Your task to perform on an android device: Search for "lenovo thinkpad" on newegg, select the first entry, add it to the cart, then select checkout. Image 0: 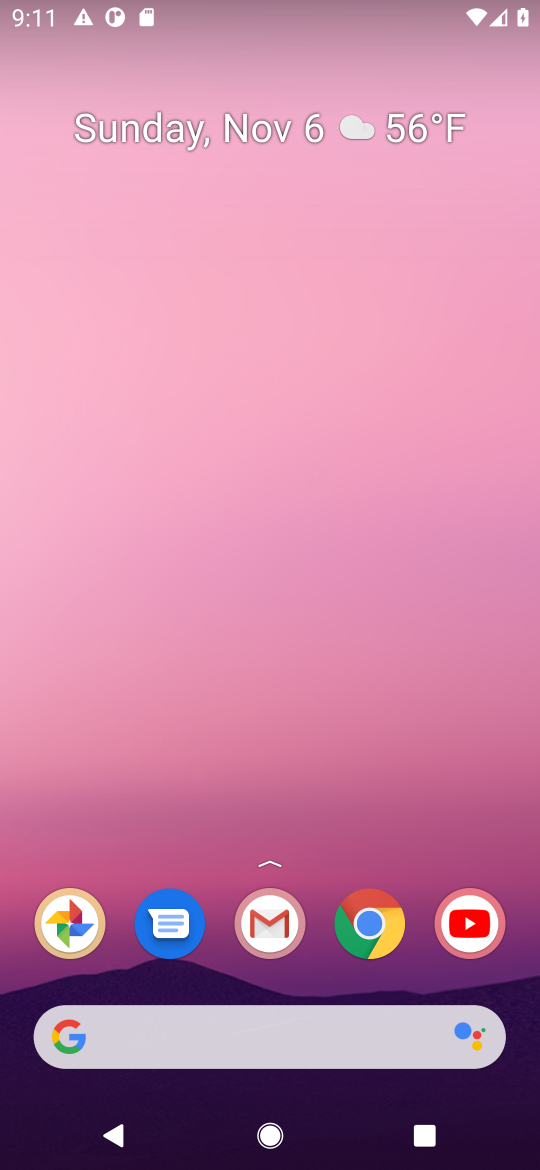
Step 0: click (370, 929)
Your task to perform on an android device: Search for "lenovo thinkpad" on newegg, select the first entry, add it to the cart, then select checkout. Image 1: 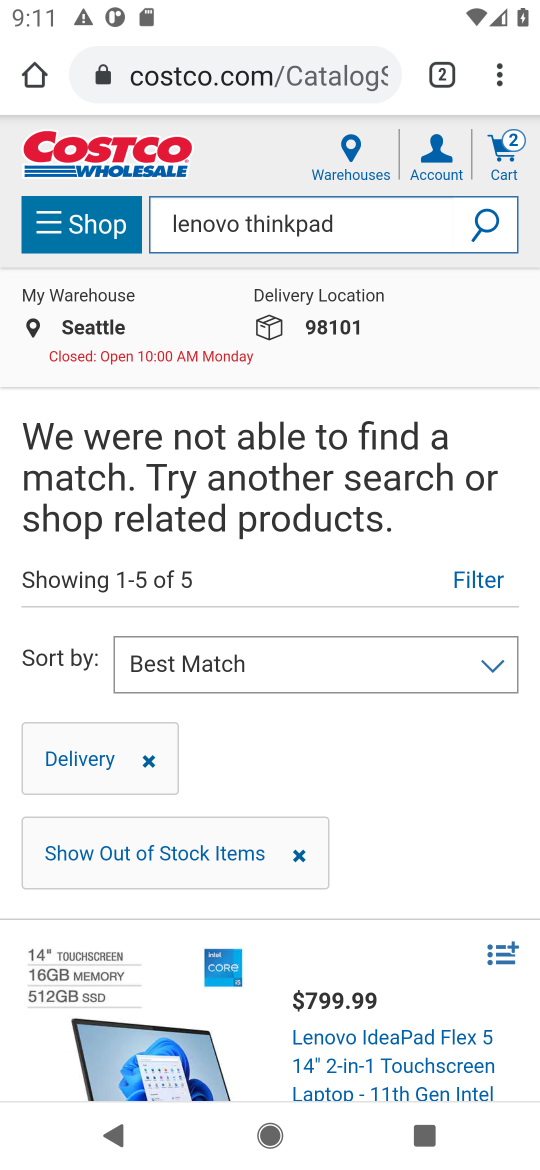
Step 1: click (246, 81)
Your task to perform on an android device: Search for "lenovo thinkpad" on newegg, select the first entry, add it to the cart, then select checkout. Image 2: 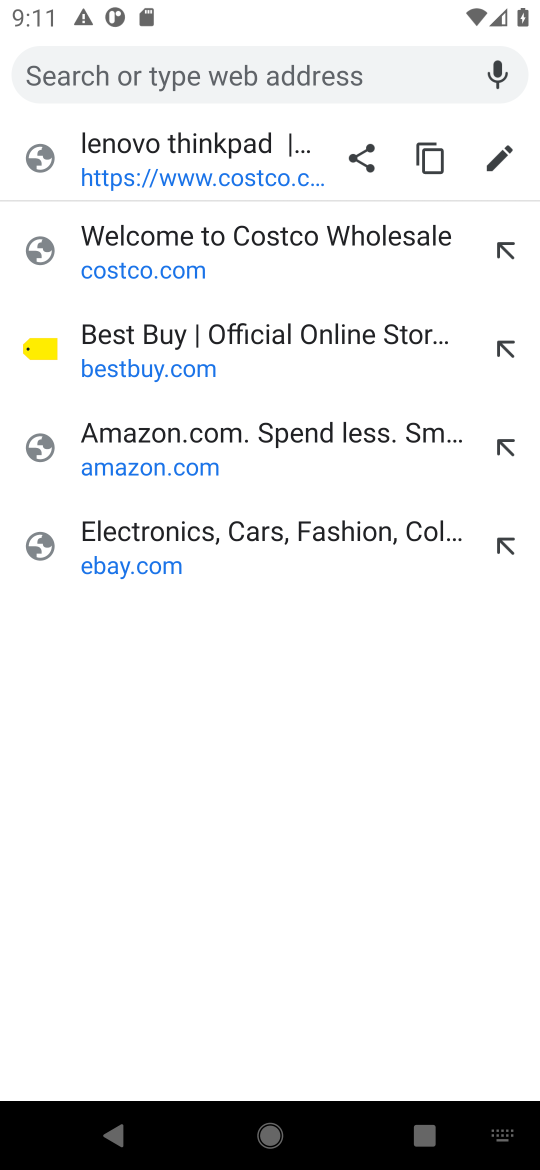
Step 2: type "newegg.com"
Your task to perform on an android device: Search for "lenovo thinkpad" on newegg, select the first entry, add it to the cart, then select checkout. Image 3: 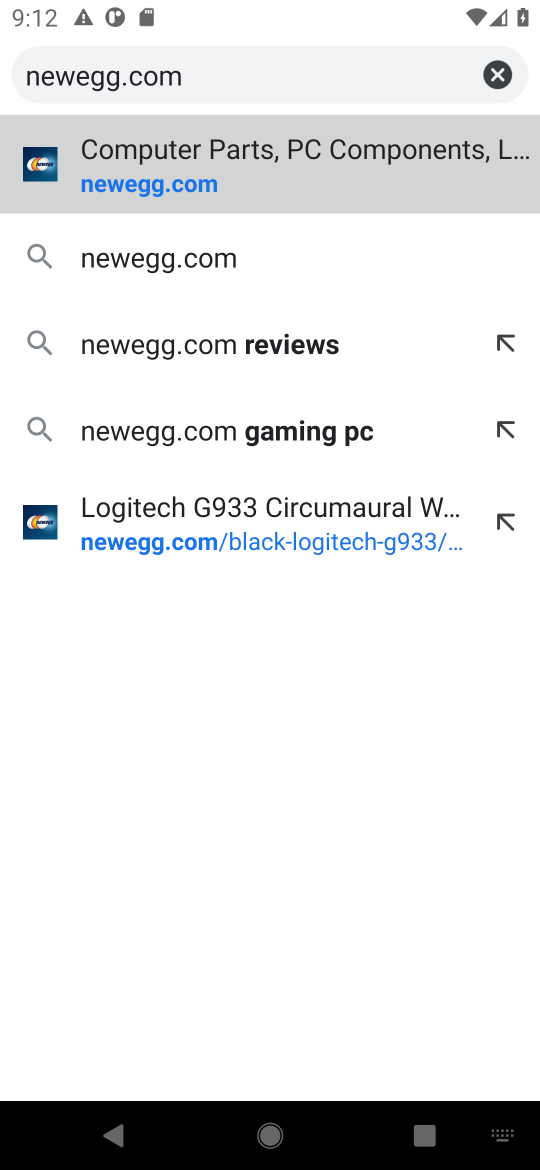
Step 3: click (117, 263)
Your task to perform on an android device: Search for "lenovo thinkpad" on newegg, select the first entry, add it to the cart, then select checkout. Image 4: 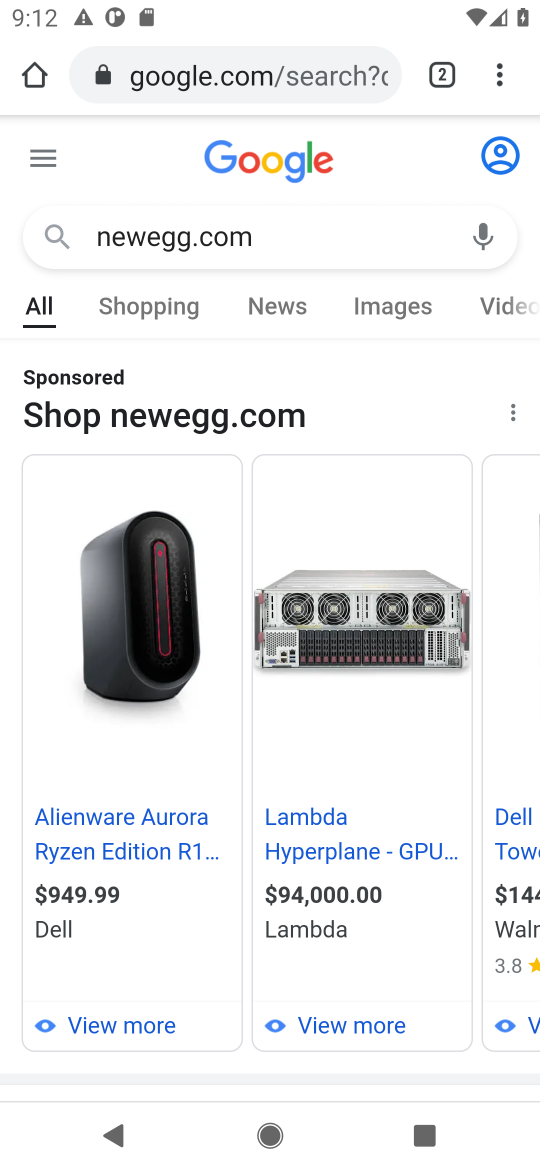
Step 4: drag from (161, 733) to (159, 5)
Your task to perform on an android device: Search for "lenovo thinkpad" on newegg, select the first entry, add it to the cart, then select checkout. Image 5: 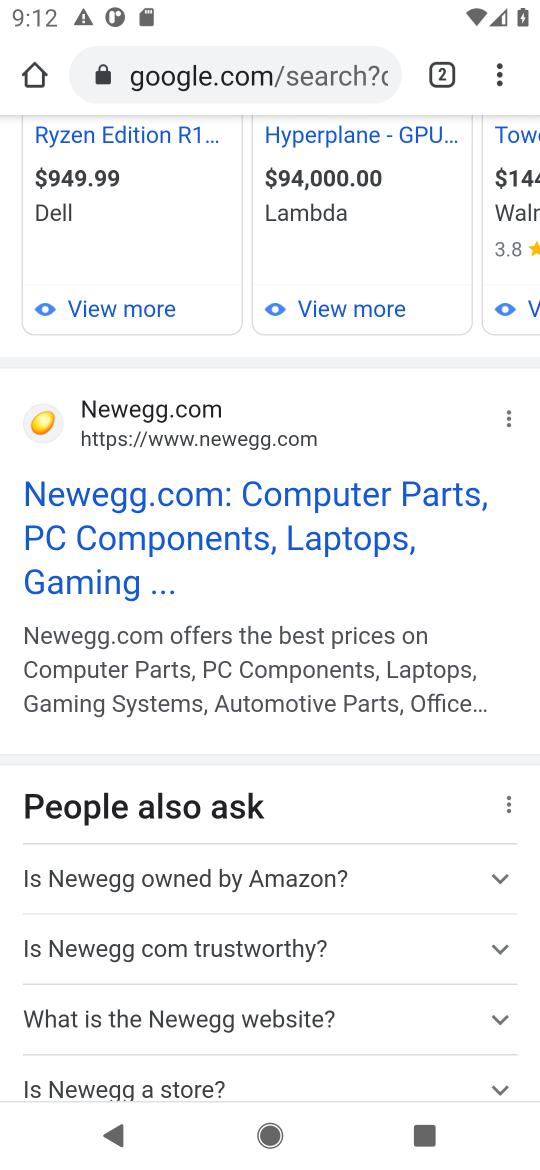
Step 5: click (150, 511)
Your task to perform on an android device: Search for "lenovo thinkpad" on newegg, select the first entry, add it to the cart, then select checkout. Image 6: 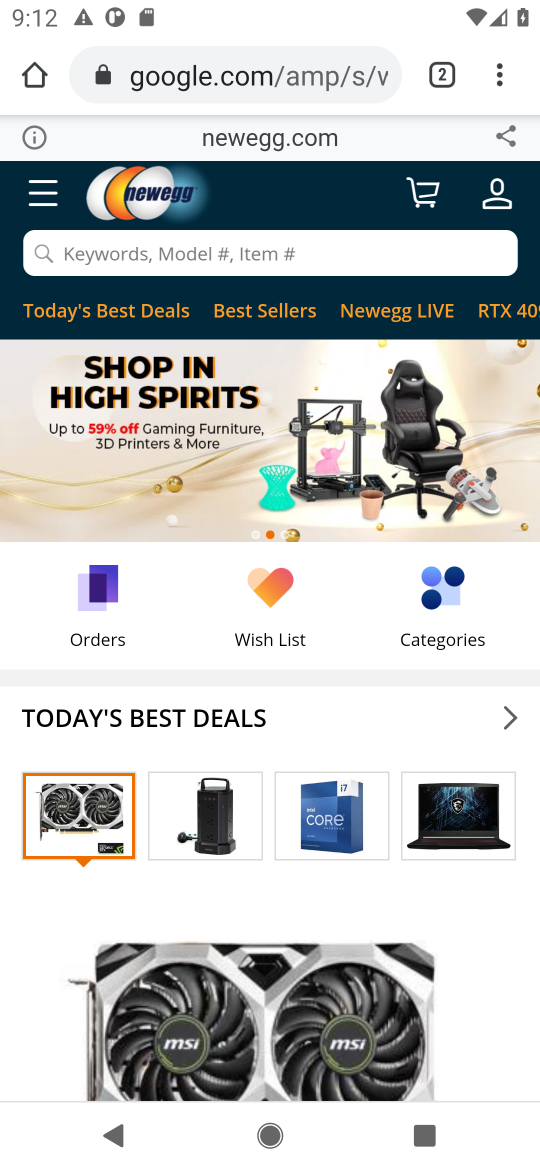
Step 6: click (252, 248)
Your task to perform on an android device: Search for "lenovo thinkpad" on newegg, select the first entry, add it to the cart, then select checkout. Image 7: 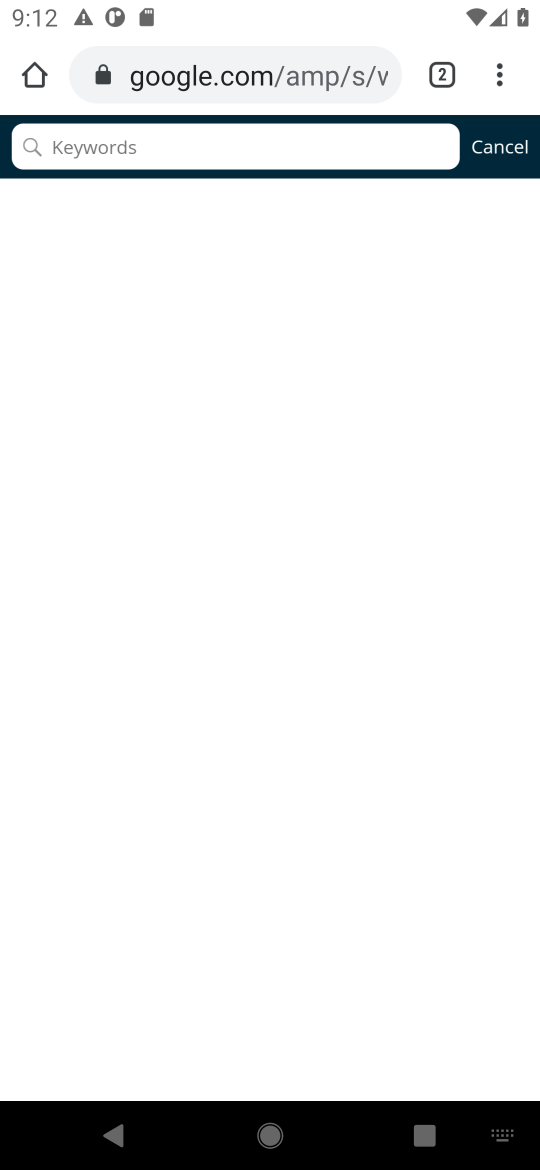
Step 7: type "lenovo thinkpad"
Your task to perform on an android device: Search for "lenovo thinkpad" on newegg, select the first entry, add it to the cart, then select checkout. Image 8: 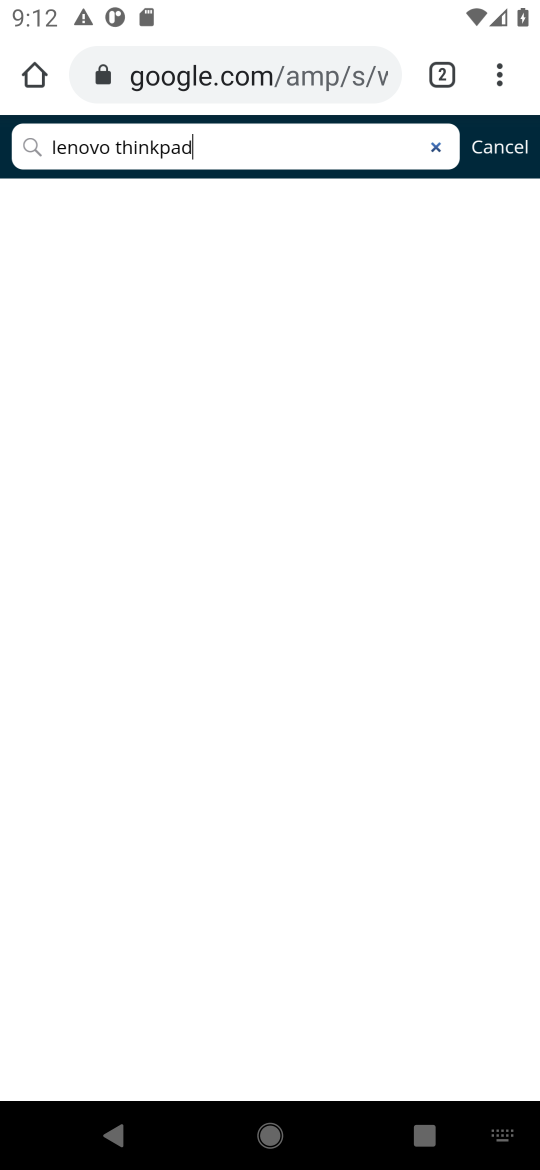
Step 8: click (513, 159)
Your task to perform on an android device: Search for "lenovo thinkpad" on newegg, select the first entry, add it to the cart, then select checkout. Image 9: 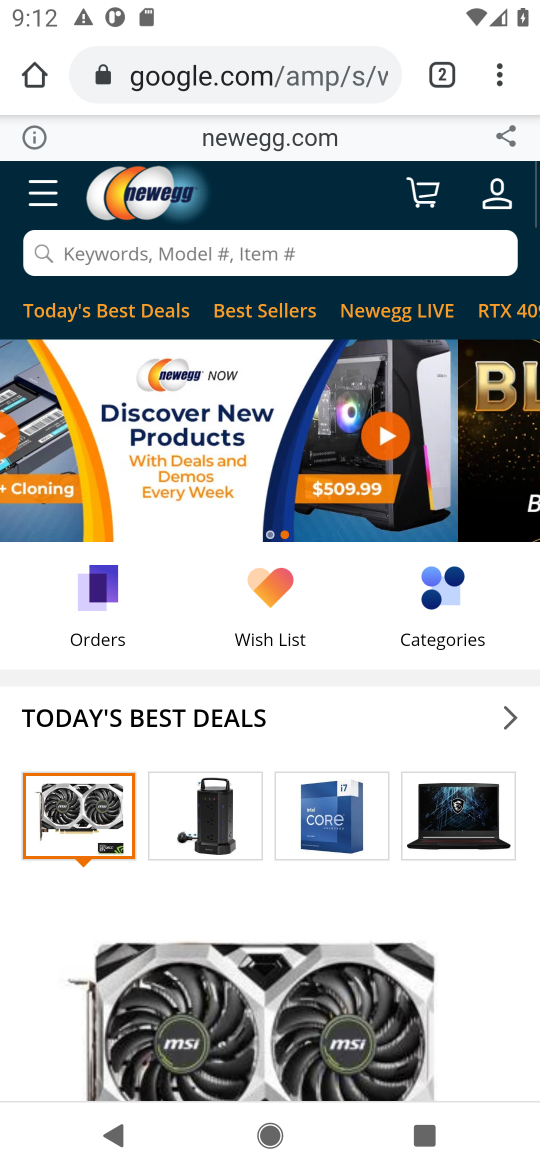
Step 9: click (425, 199)
Your task to perform on an android device: Search for "lenovo thinkpad" on newegg, select the first entry, add it to the cart, then select checkout. Image 10: 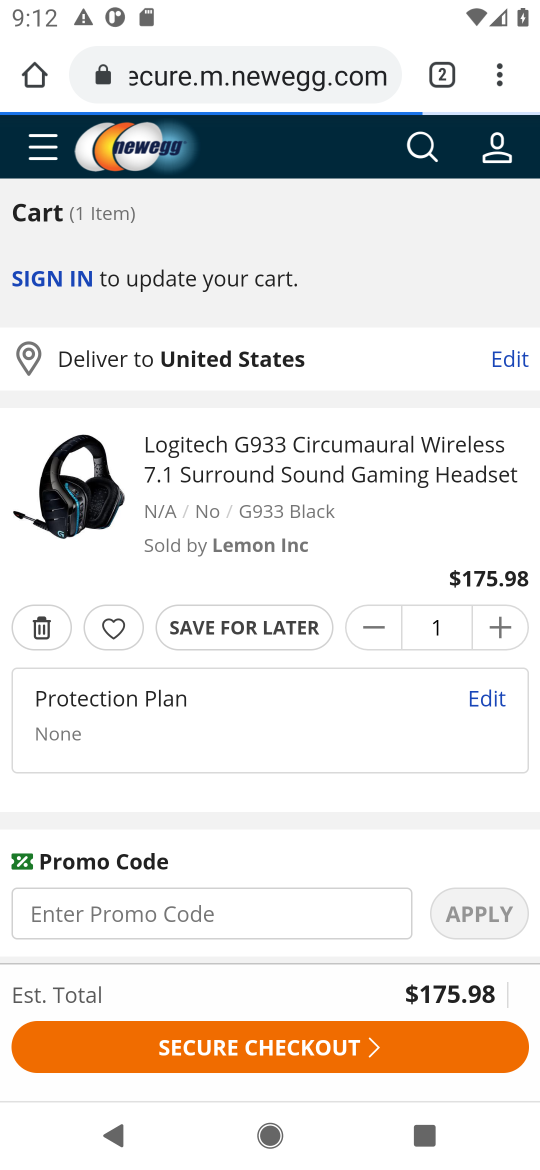
Step 10: click (415, 154)
Your task to perform on an android device: Search for "lenovo thinkpad" on newegg, select the first entry, add it to the cart, then select checkout. Image 11: 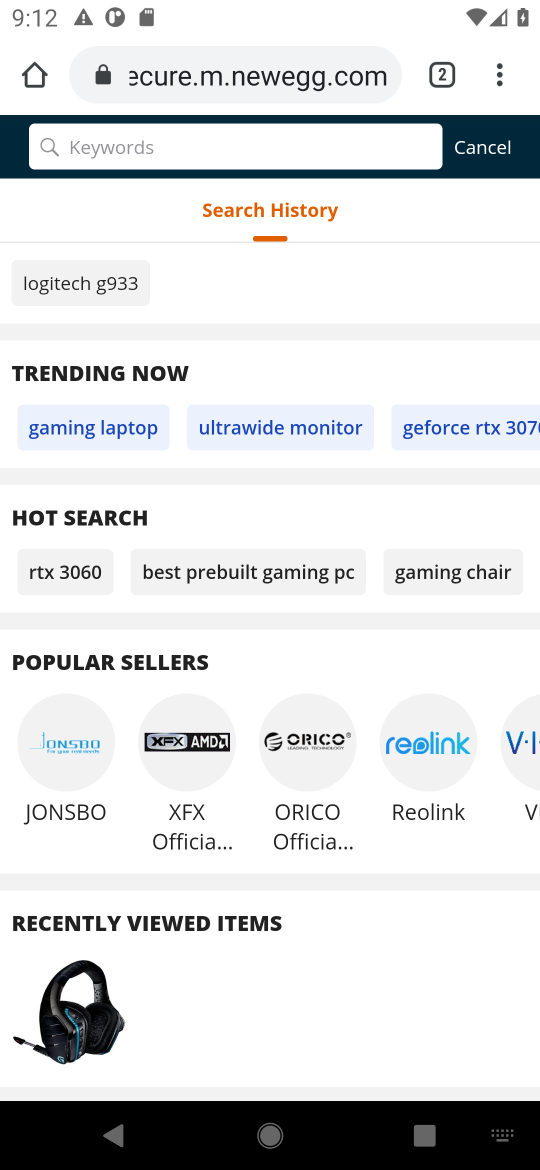
Step 11: type "lenovo thinkpad"
Your task to perform on an android device: Search for "lenovo thinkpad" on newegg, select the first entry, add it to the cart, then select checkout. Image 12: 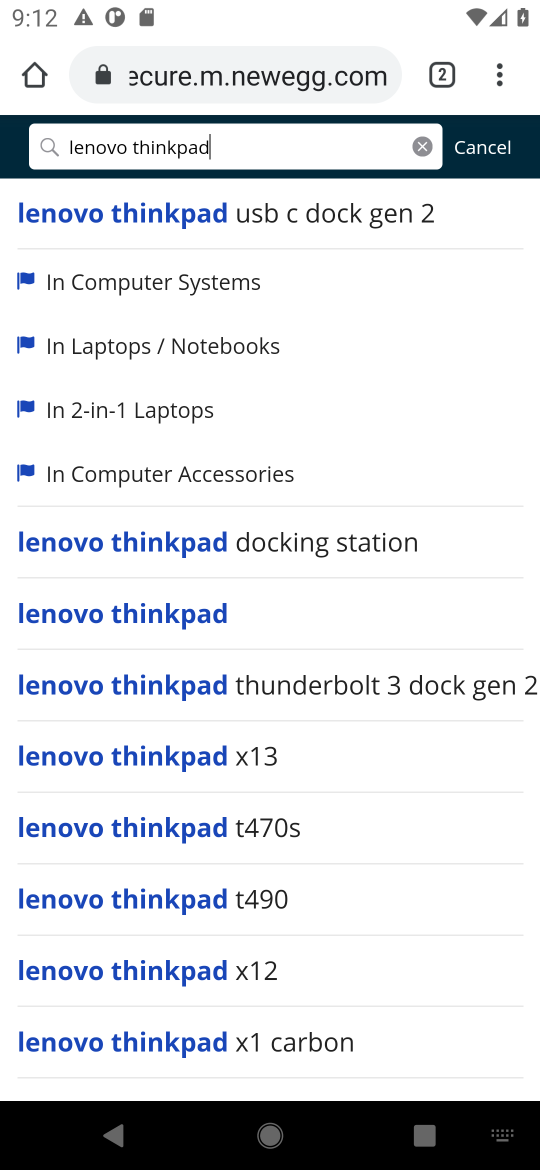
Step 12: click (180, 616)
Your task to perform on an android device: Search for "lenovo thinkpad" on newegg, select the first entry, add it to the cart, then select checkout. Image 13: 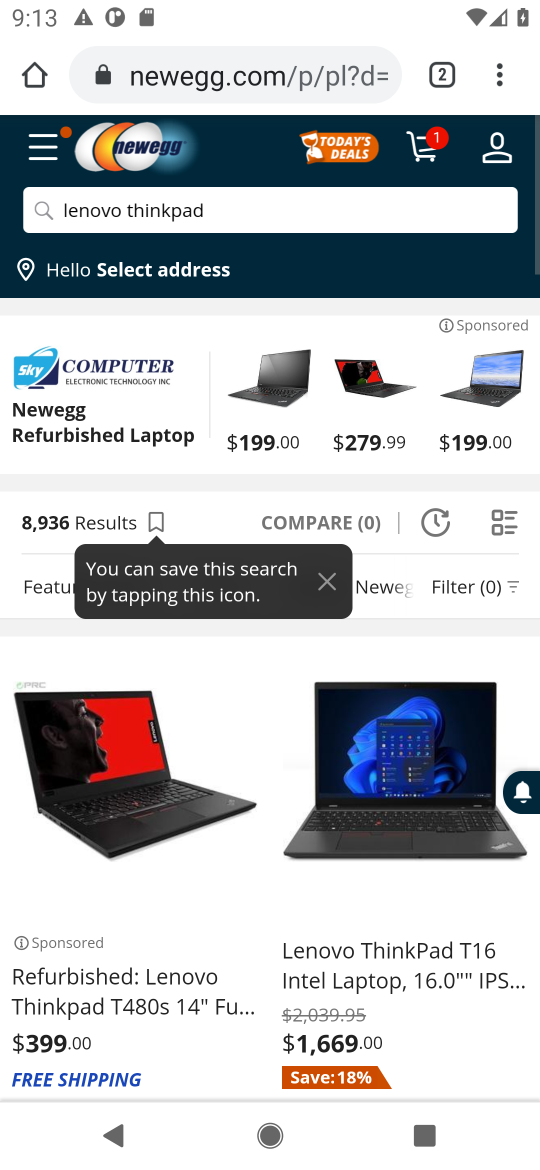
Step 13: drag from (221, 944) to (198, 650)
Your task to perform on an android device: Search for "lenovo thinkpad" on newegg, select the first entry, add it to the cart, then select checkout. Image 14: 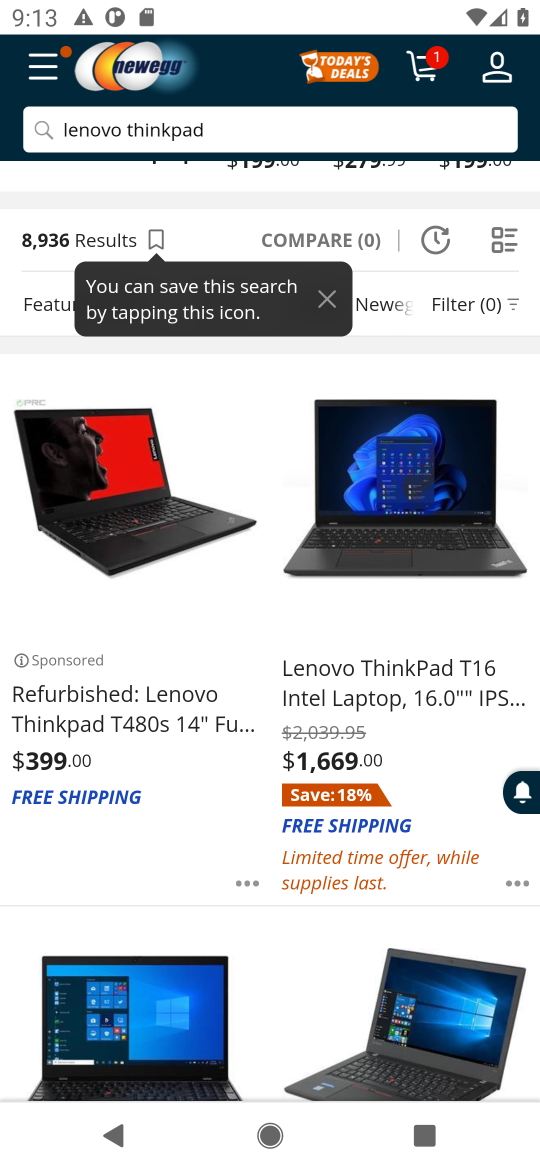
Step 14: drag from (185, 784) to (166, 372)
Your task to perform on an android device: Search for "lenovo thinkpad" on newegg, select the first entry, add it to the cart, then select checkout. Image 15: 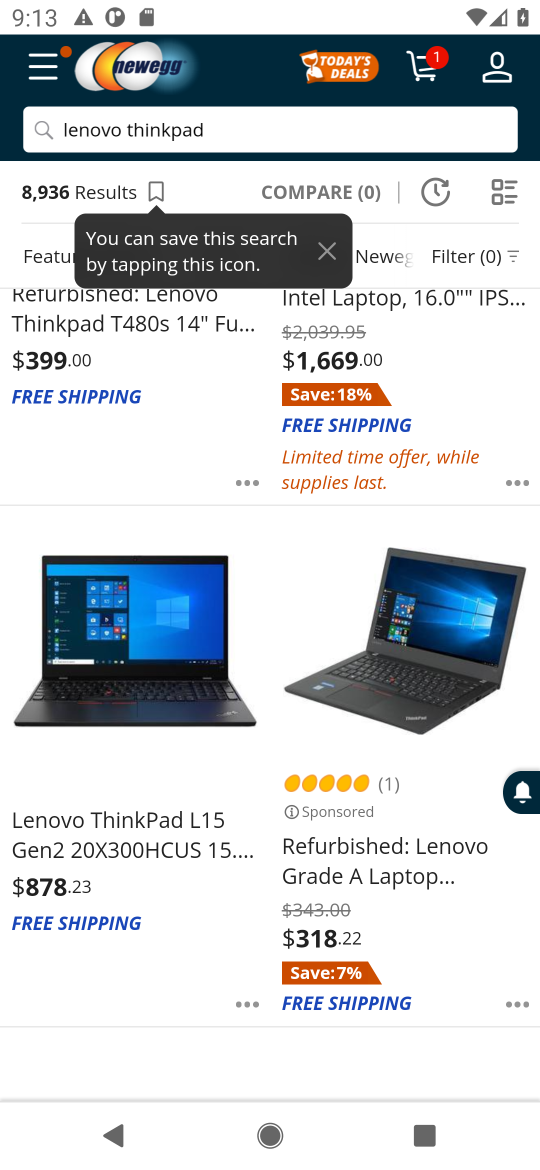
Step 15: drag from (138, 445) to (146, 980)
Your task to perform on an android device: Search for "lenovo thinkpad" on newegg, select the first entry, add it to the cart, then select checkout. Image 16: 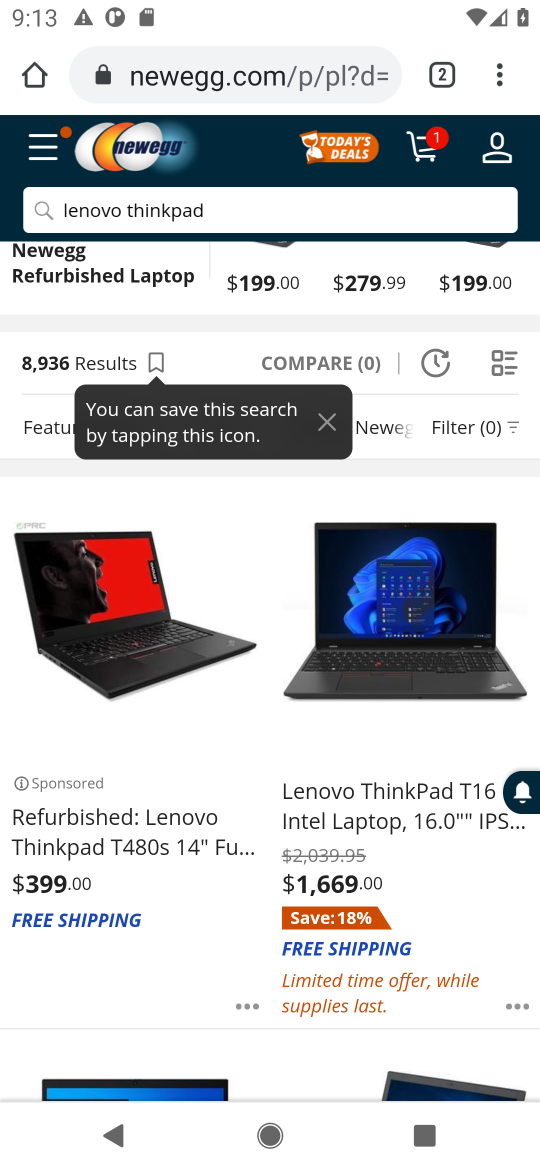
Step 16: click (104, 739)
Your task to perform on an android device: Search for "lenovo thinkpad" on newegg, select the first entry, add it to the cart, then select checkout. Image 17: 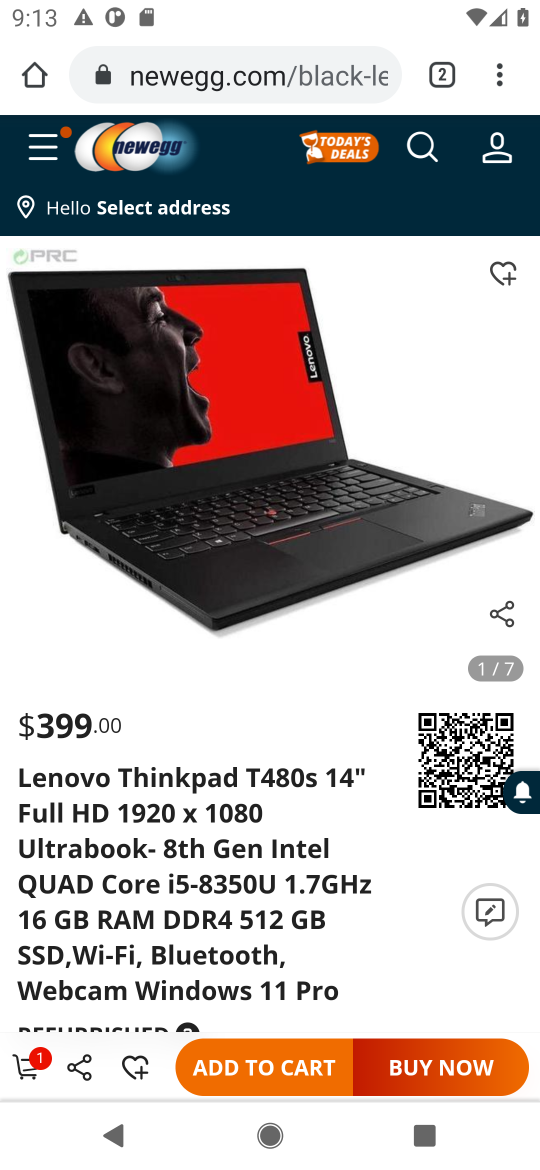
Step 17: click (210, 1053)
Your task to perform on an android device: Search for "lenovo thinkpad" on newegg, select the first entry, add it to the cart, then select checkout. Image 18: 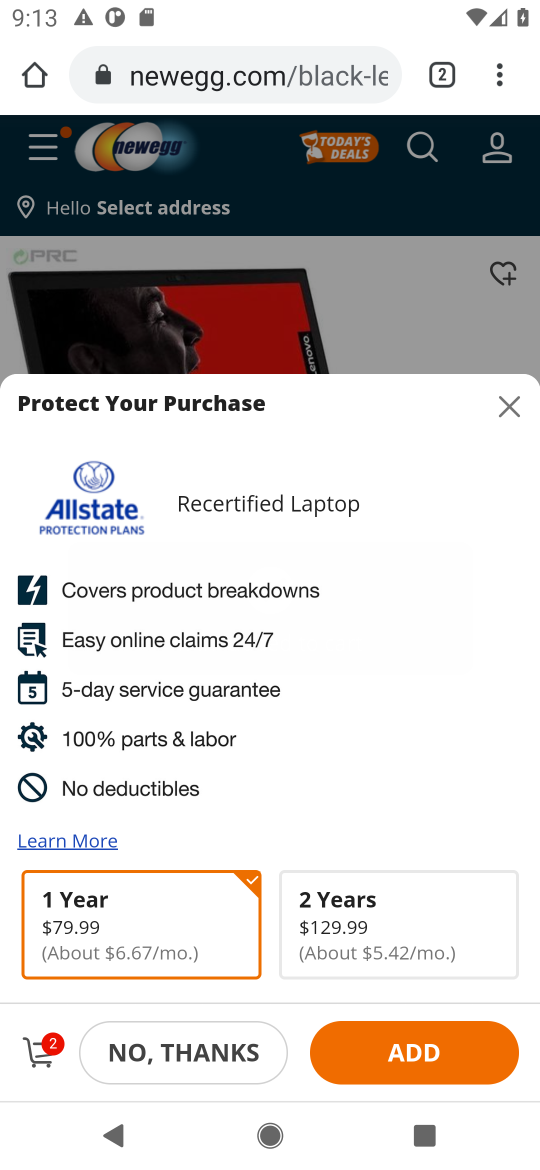
Step 18: click (37, 1060)
Your task to perform on an android device: Search for "lenovo thinkpad" on newegg, select the first entry, add it to the cart, then select checkout. Image 19: 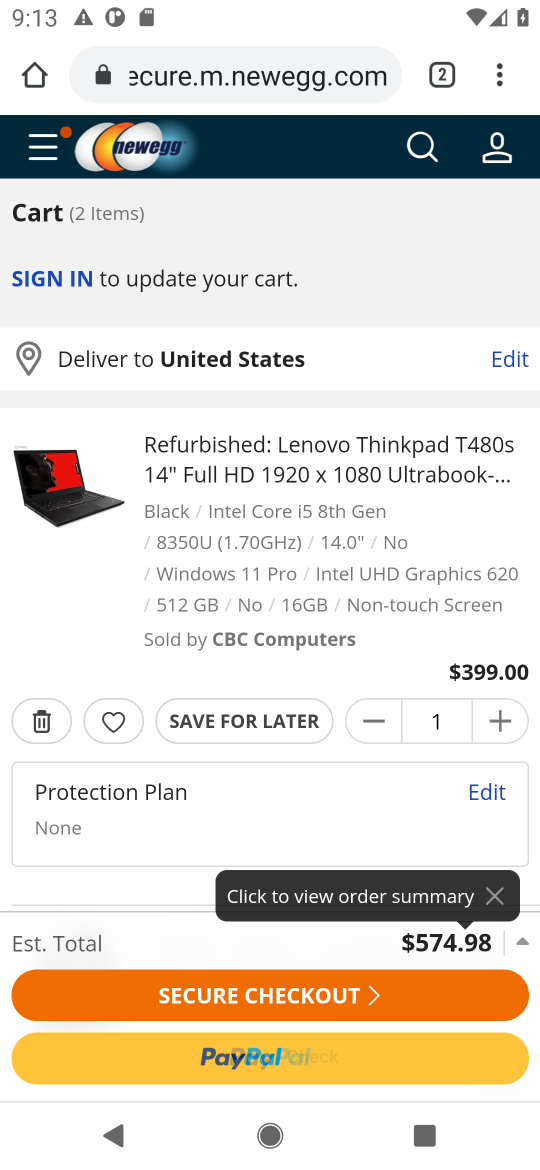
Step 19: click (221, 990)
Your task to perform on an android device: Search for "lenovo thinkpad" on newegg, select the first entry, add it to the cart, then select checkout. Image 20: 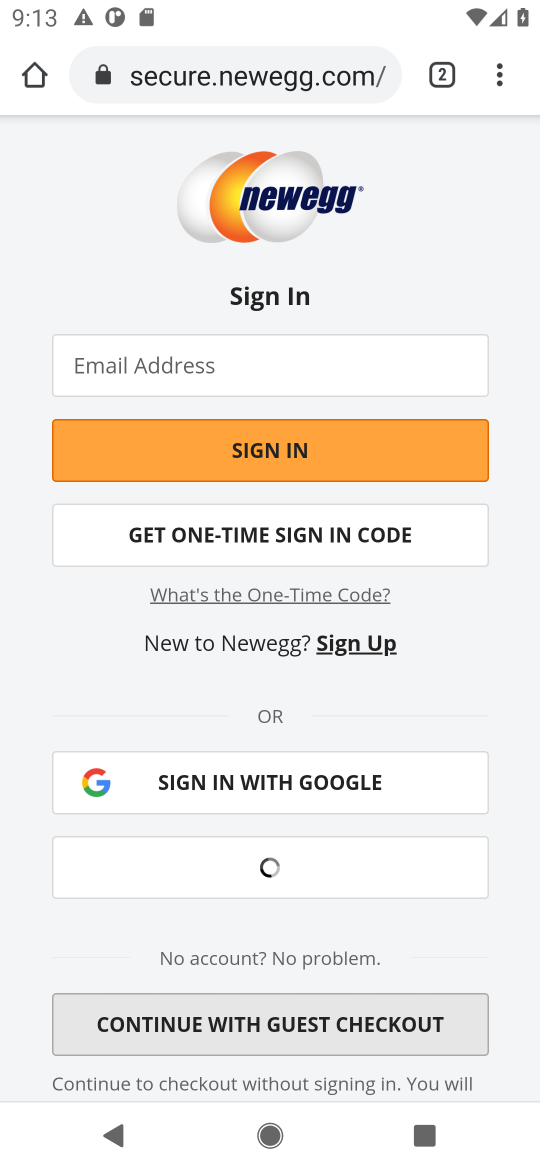
Step 20: task complete